Your task to perform on an android device: install app "PlayWell" Image 0: 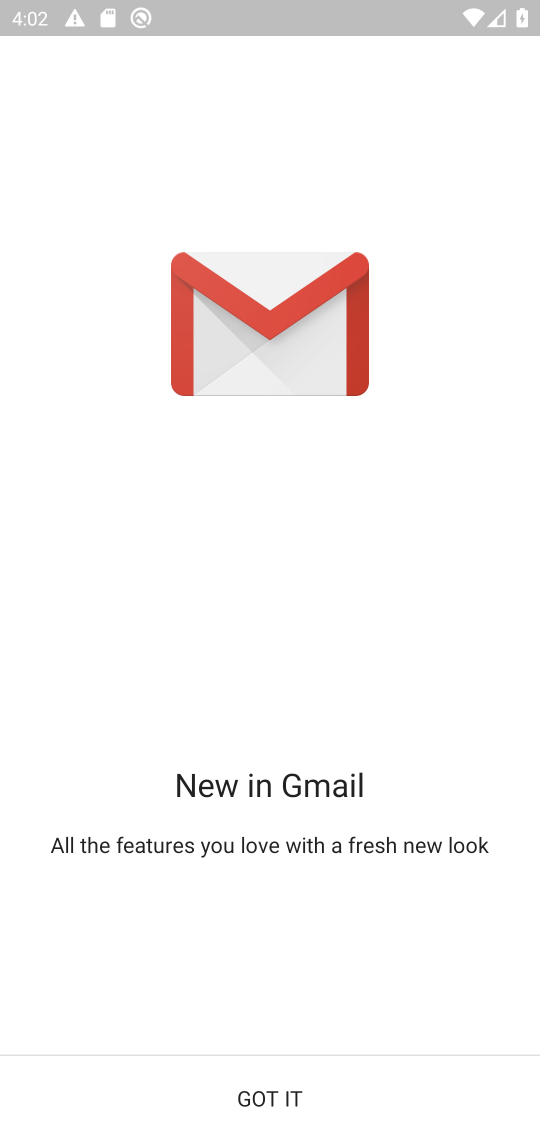
Step 0: click (29, 66)
Your task to perform on an android device: install app "PlayWell" Image 1: 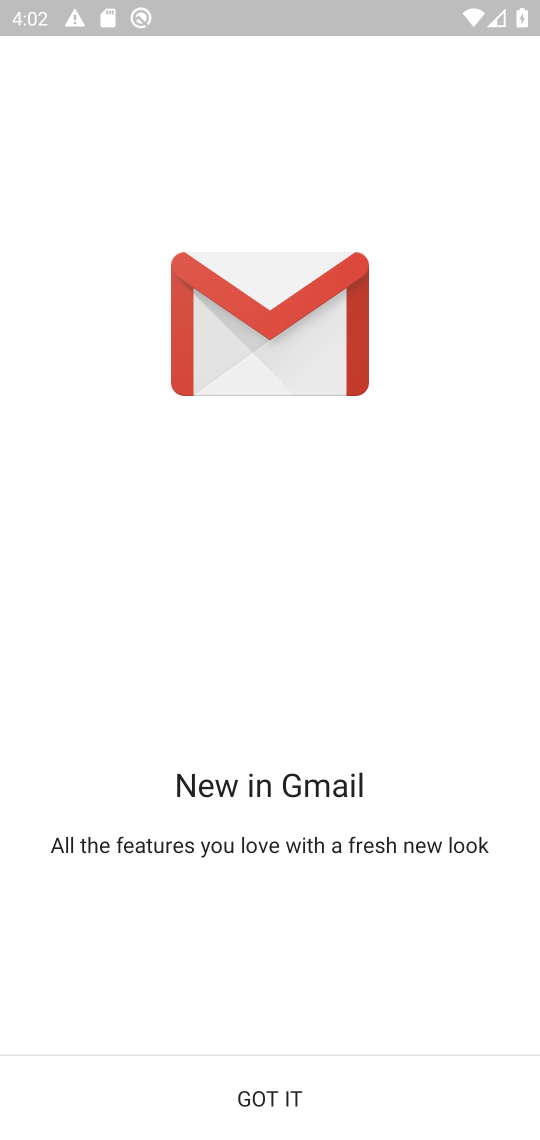
Step 1: click (29, 66)
Your task to perform on an android device: install app "PlayWell" Image 2: 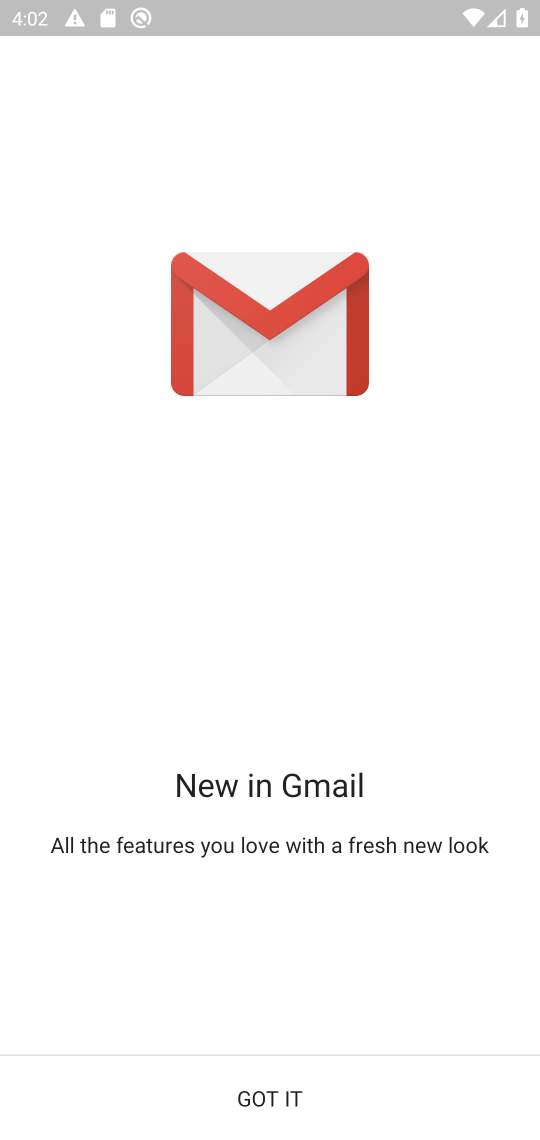
Step 2: press back button
Your task to perform on an android device: install app "PlayWell" Image 3: 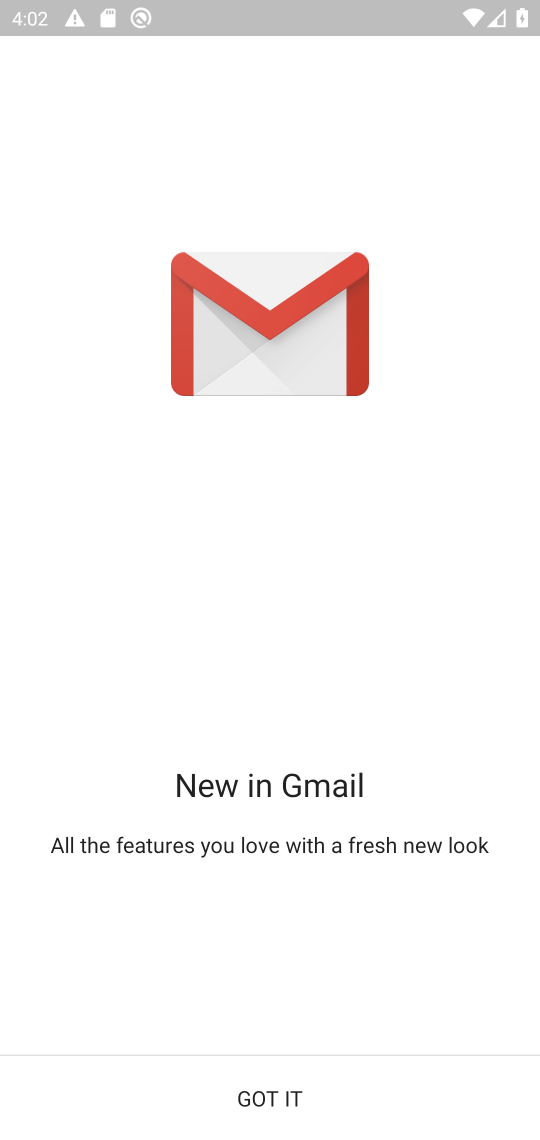
Step 3: press back button
Your task to perform on an android device: install app "PlayWell" Image 4: 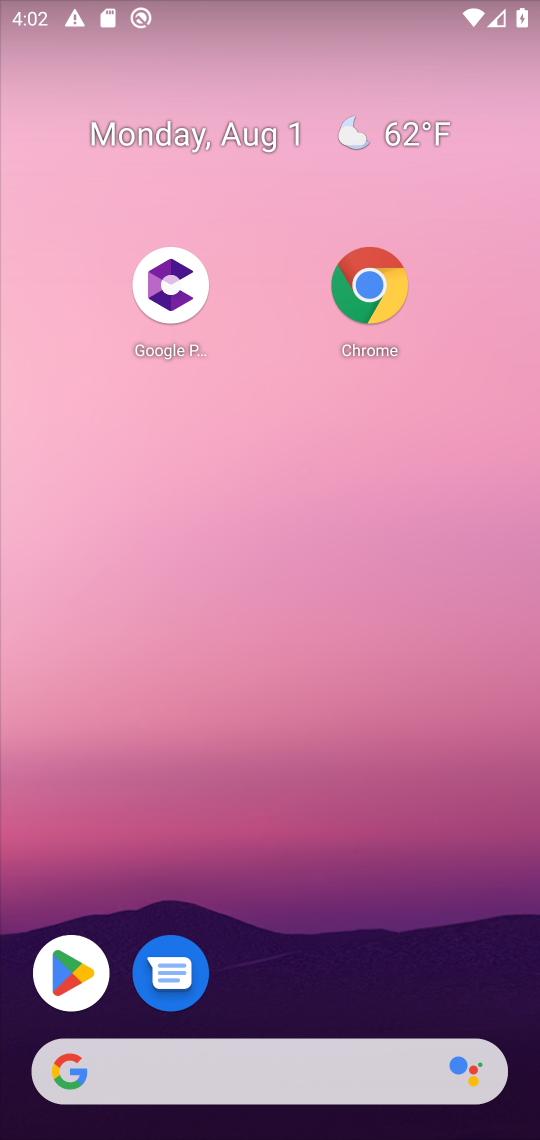
Step 4: click (219, 198)
Your task to perform on an android device: install app "PlayWell" Image 5: 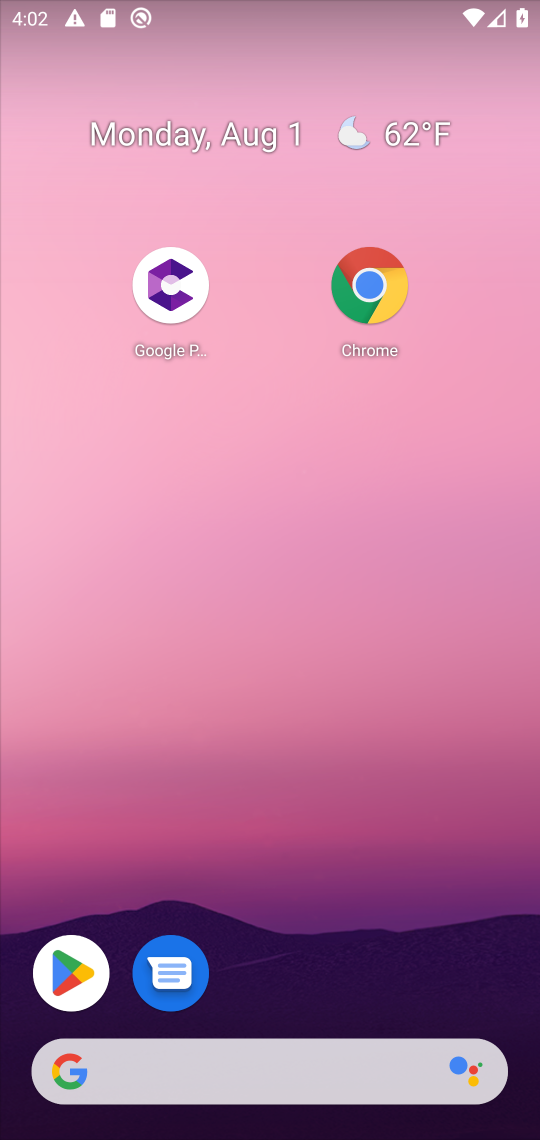
Step 5: drag from (283, 593) to (292, 234)
Your task to perform on an android device: install app "PlayWell" Image 6: 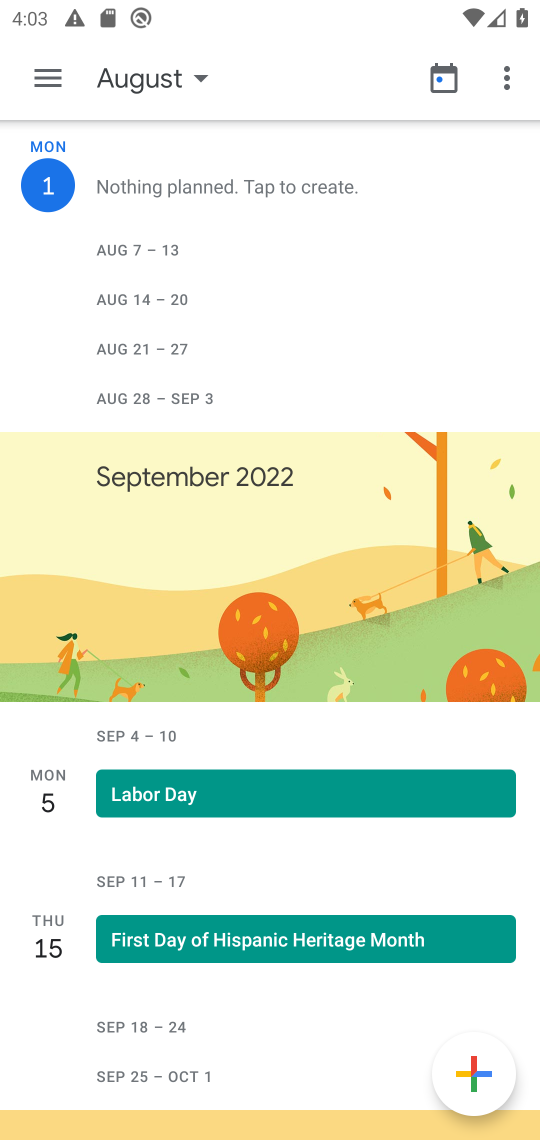
Step 6: press back button
Your task to perform on an android device: install app "PlayWell" Image 7: 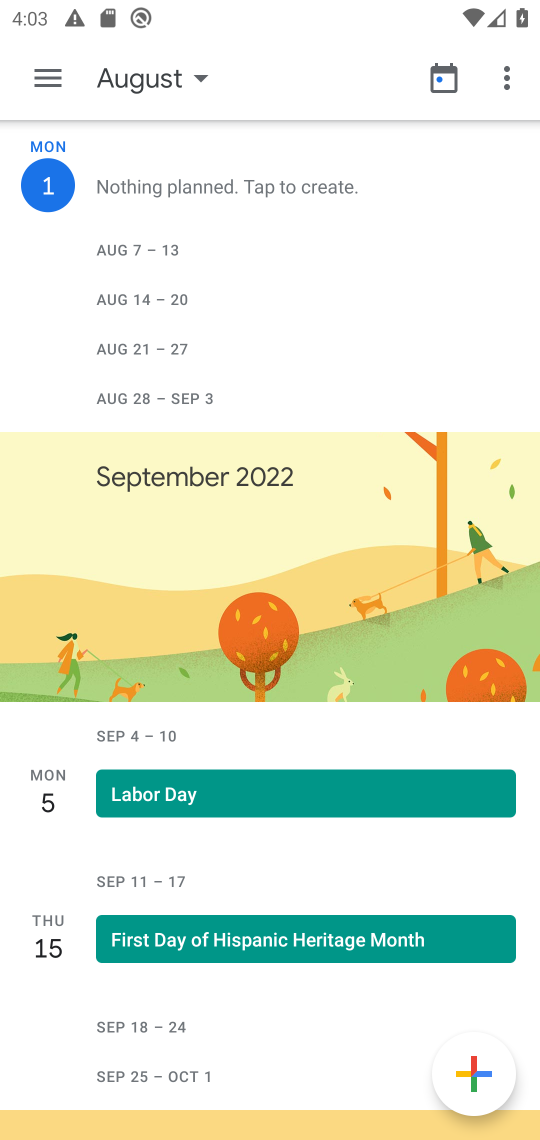
Step 7: press back button
Your task to perform on an android device: install app "PlayWell" Image 8: 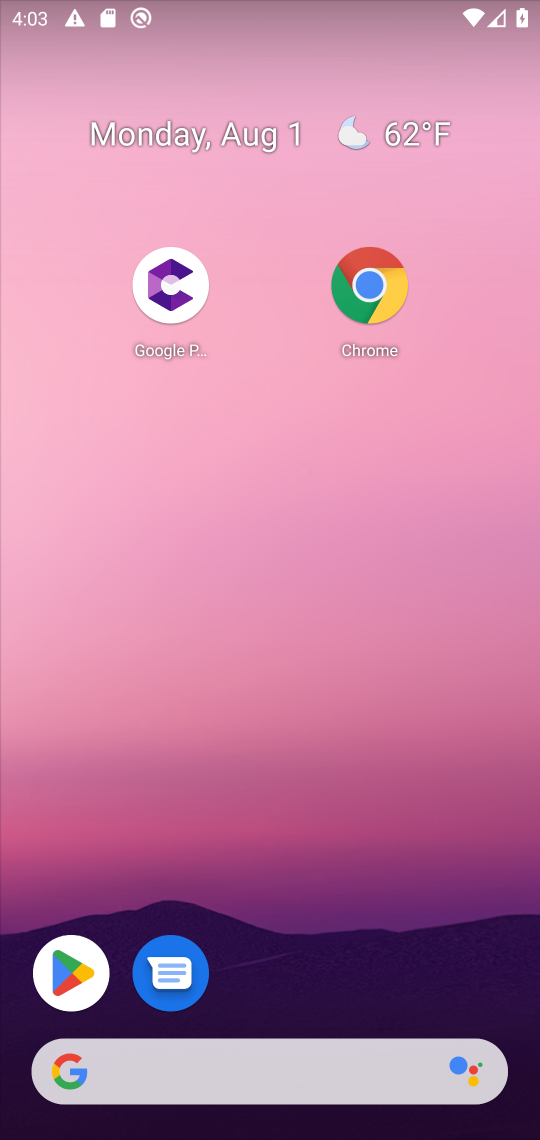
Step 8: drag from (250, 944) to (200, 180)
Your task to perform on an android device: install app "PlayWell" Image 9: 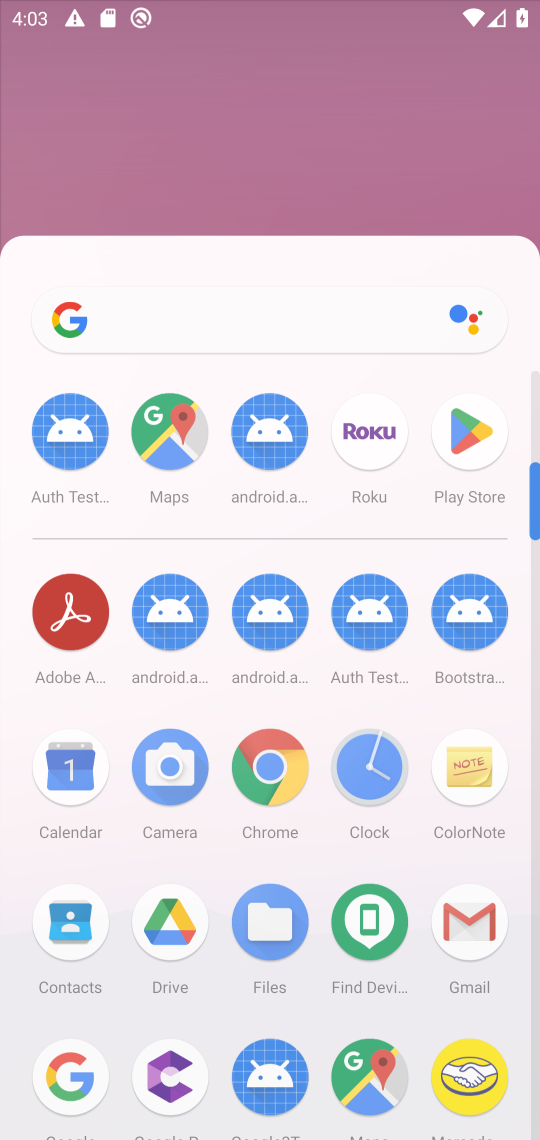
Step 9: drag from (297, 341) to (287, 215)
Your task to perform on an android device: install app "PlayWell" Image 10: 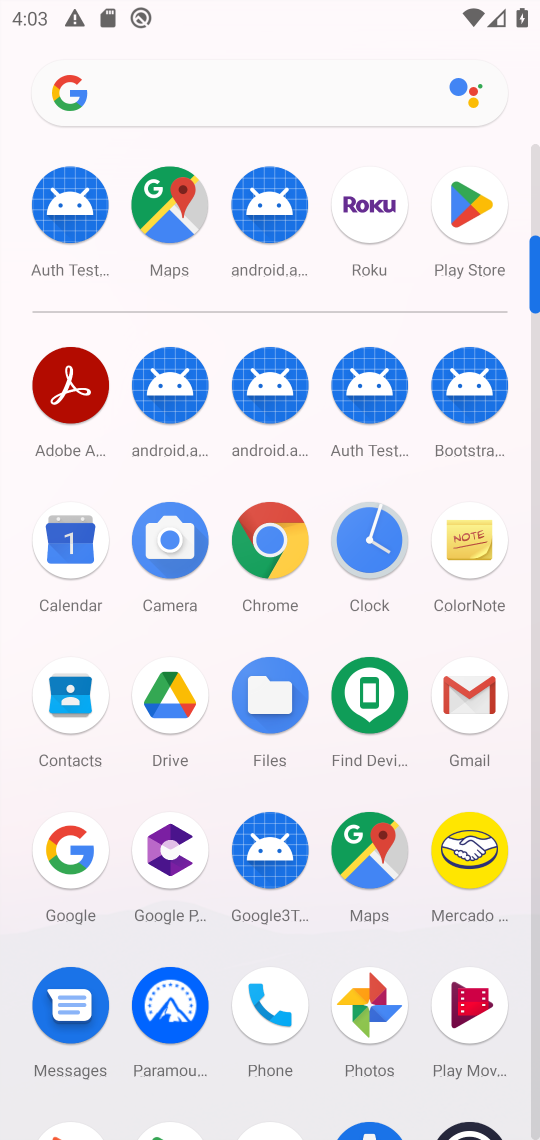
Step 10: drag from (333, 838) to (324, 275)
Your task to perform on an android device: install app "PlayWell" Image 11: 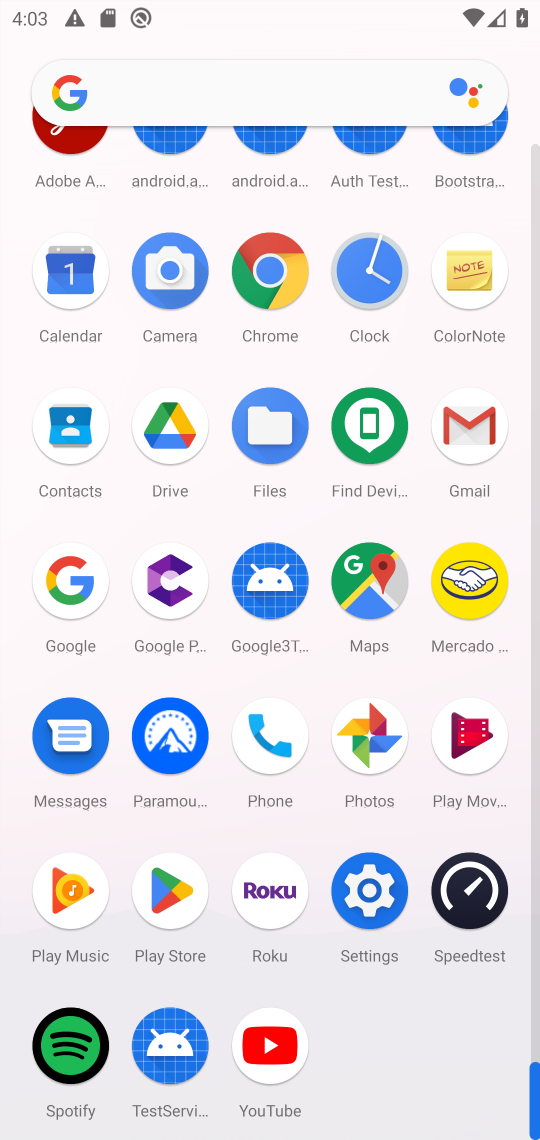
Step 11: drag from (234, 470) to (287, 976)
Your task to perform on an android device: install app "PlayWell" Image 12: 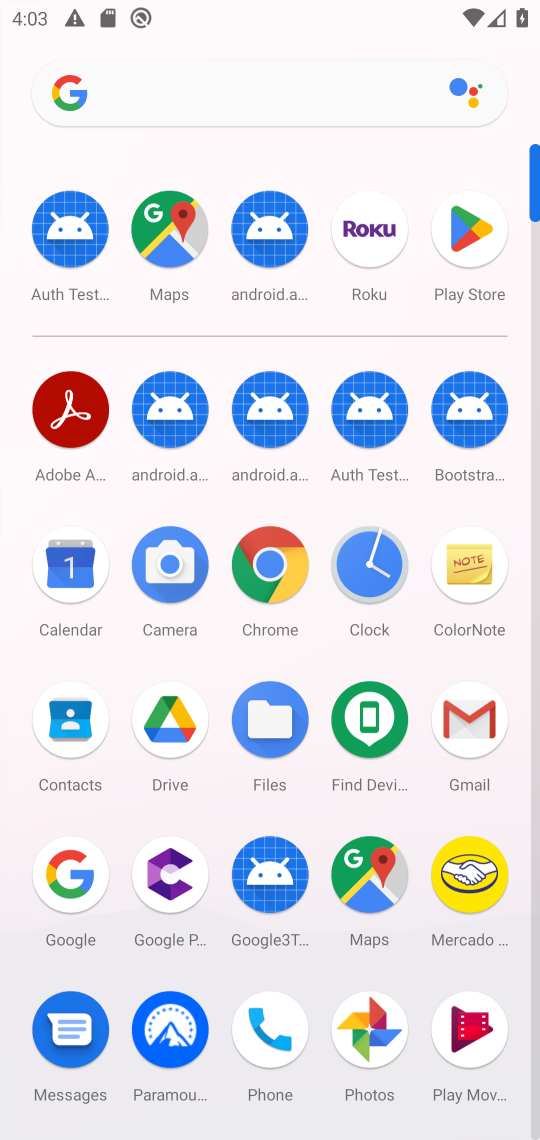
Step 12: drag from (267, 626) to (293, 976)
Your task to perform on an android device: install app "PlayWell" Image 13: 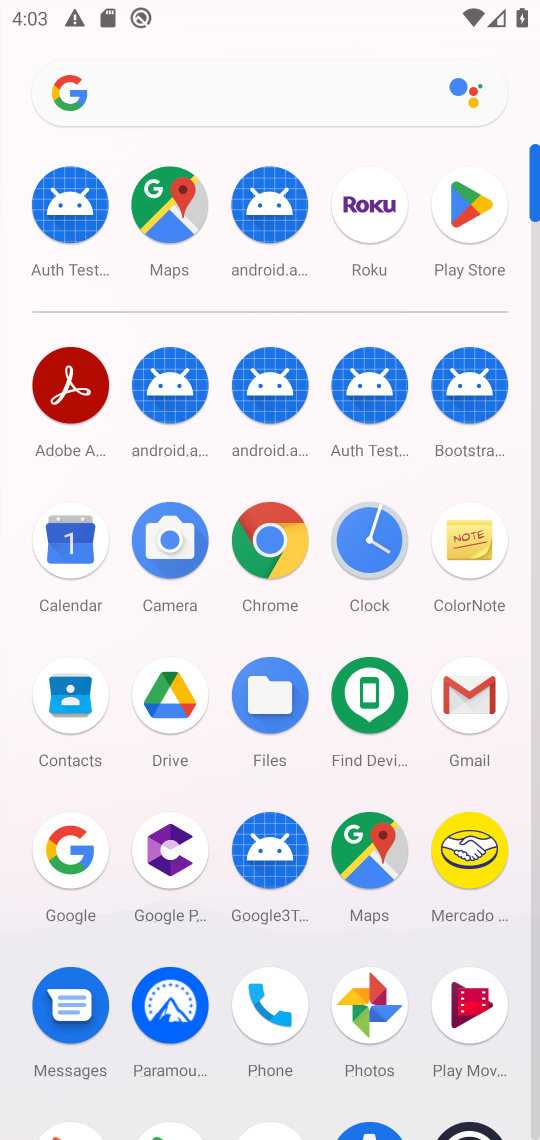
Step 13: click (467, 207)
Your task to perform on an android device: install app "PlayWell" Image 14: 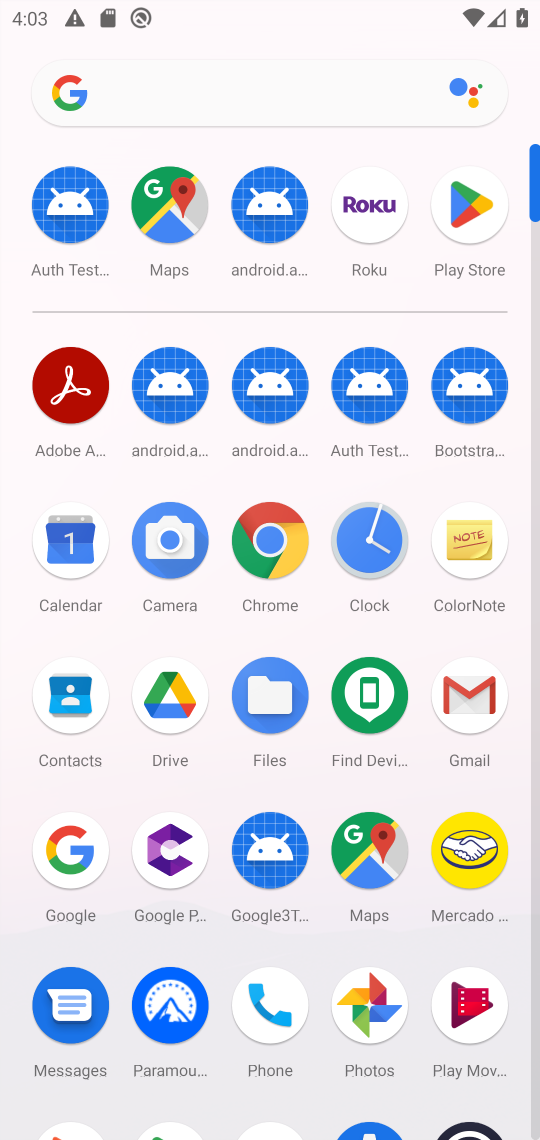
Step 14: click (467, 207)
Your task to perform on an android device: install app "PlayWell" Image 15: 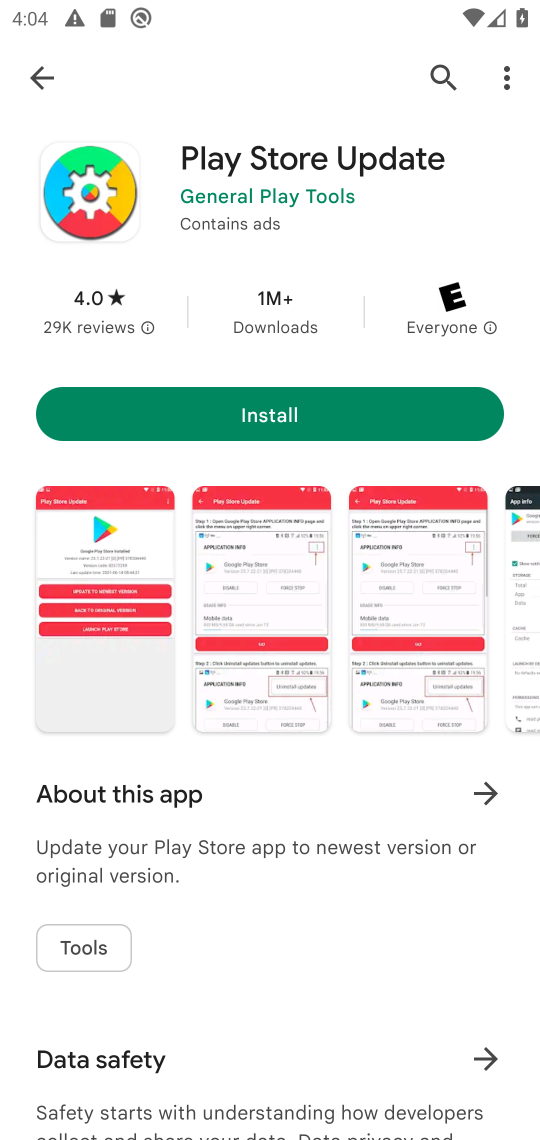
Step 15: click (43, 79)
Your task to perform on an android device: install app "PlayWell" Image 16: 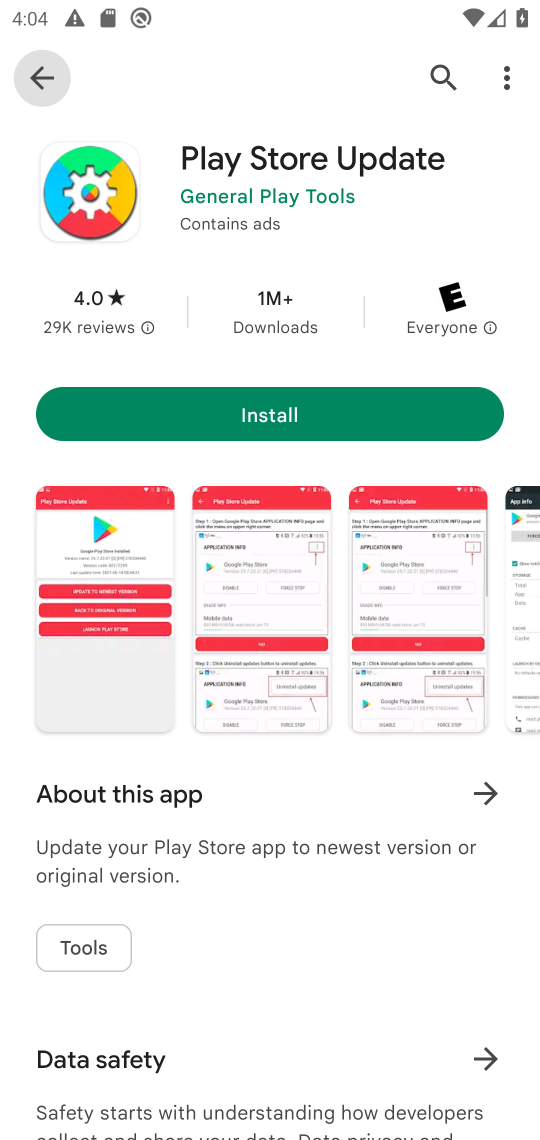
Step 16: click (43, 79)
Your task to perform on an android device: install app "PlayWell" Image 17: 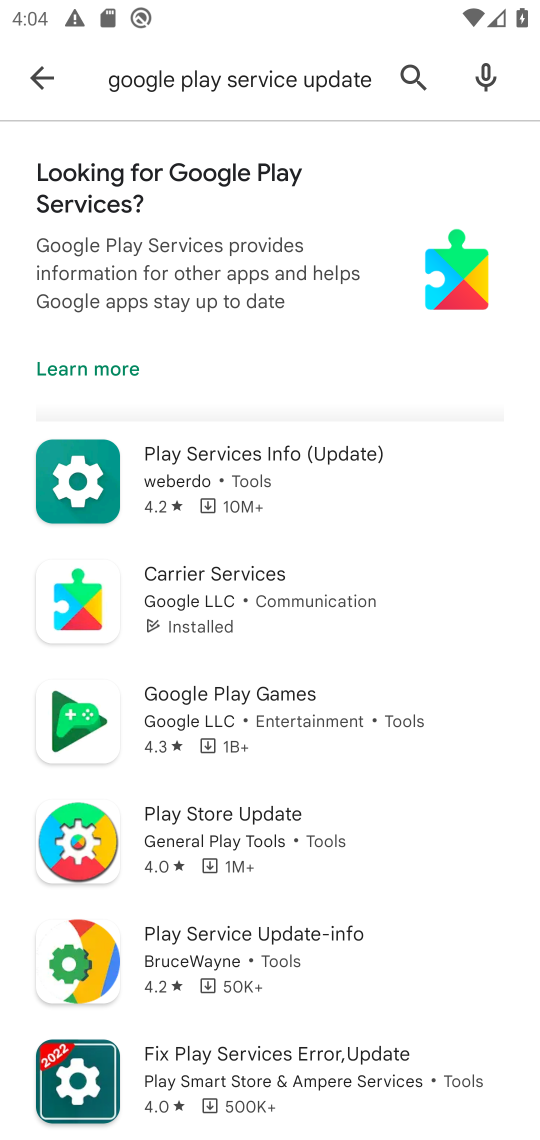
Step 17: click (45, 72)
Your task to perform on an android device: install app "PlayWell" Image 18: 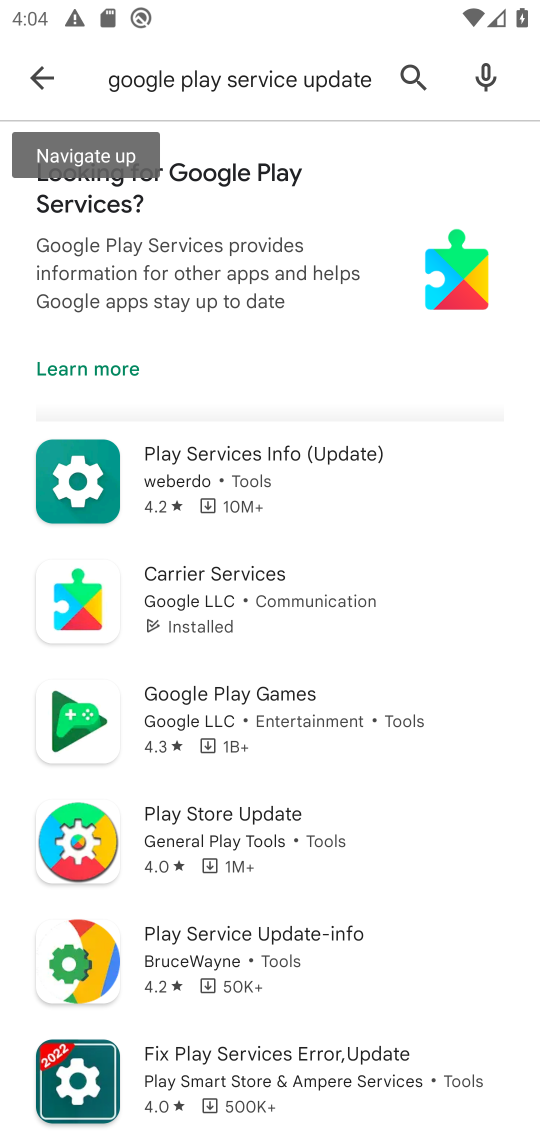
Step 18: task complete